Your task to perform on an android device: set an alarm Image 0: 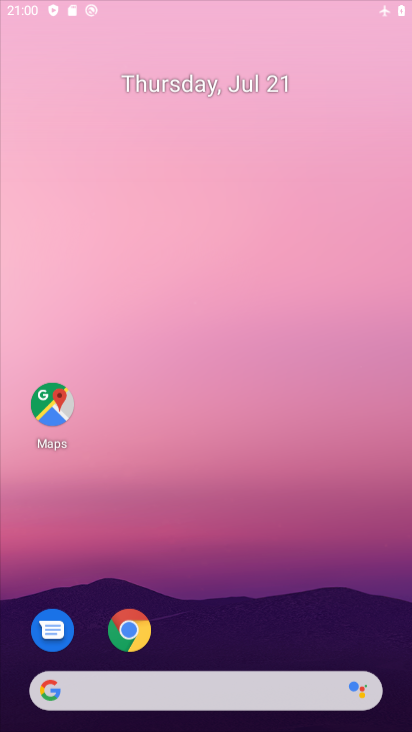
Step 0: click (236, 284)
Your task to perform on an android device: set an alarm Image 1: 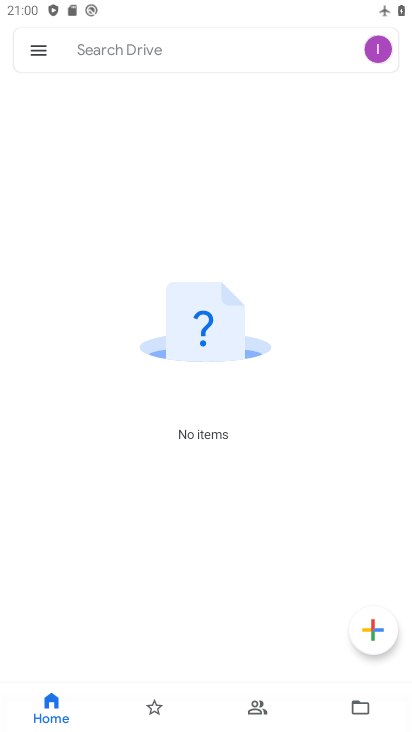
Step 1: press home button
Your task to perform on an android device: set an alarm Image 2: 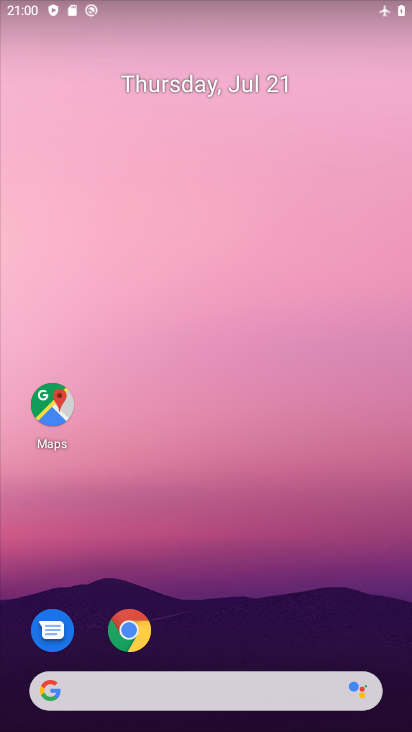
Step 2: drag from (172, 679) to (239, 184)
Your task to perform on an android device: set an alarm Image 3: 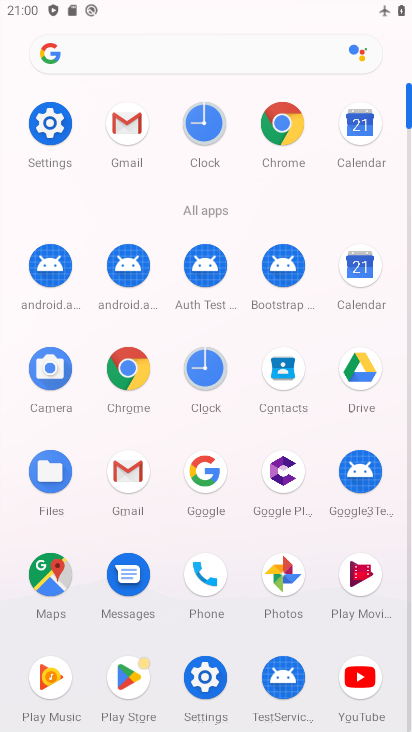
Step 3: click (198, 359)
Your task to perform on an android device: set an alarm Image 4: 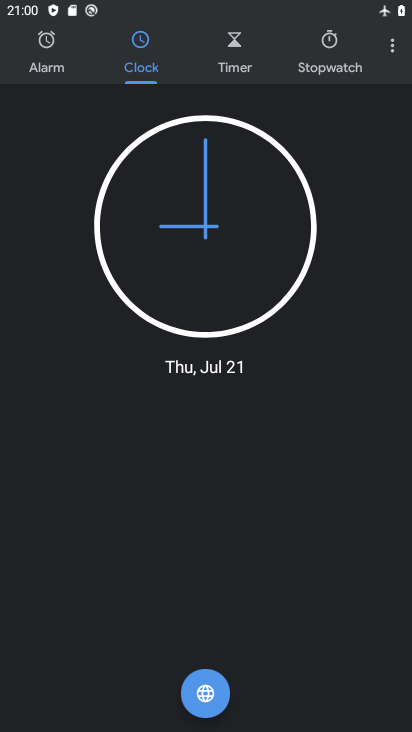
Step 4: click (27, 61)
Your task to perform on an android device: set an alarm Image 5: 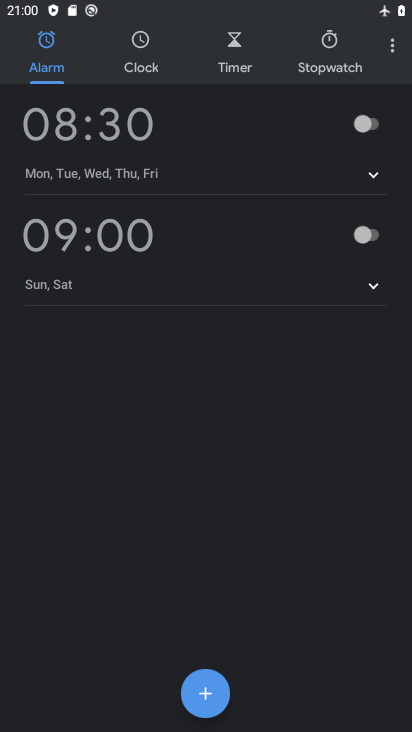
Step 5: click (201, 707)
Your task to perform on an android device: set an alarm Image 6: 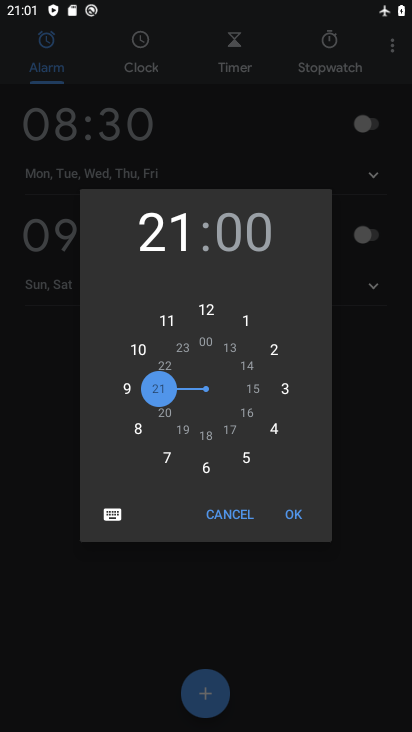
Step 6: click (204, 311)
Your task to perform on an android device: set an alarm Image 7: 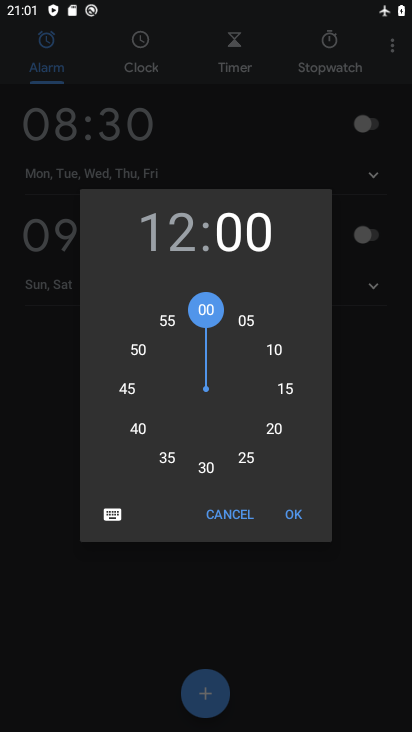
Step 7: click (293, 516)
Your task to perform on an android device: set an alarm Image 8: 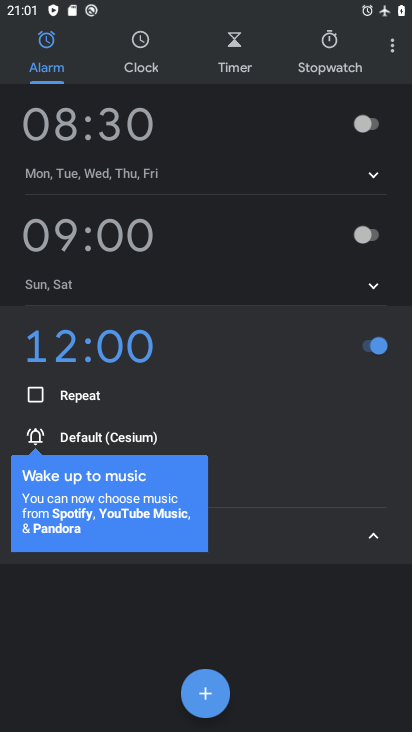
Step 8: task complete